Your task to perform on an android device: make emails show in primary in the gmail app Image 0: 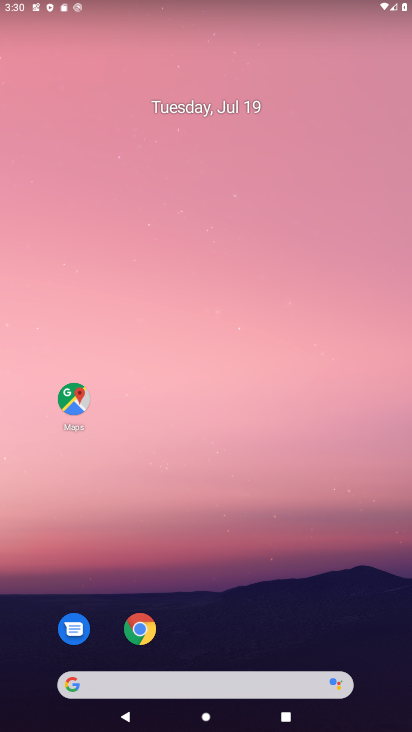
Step 0: drag from (187, 664) to (218, 289)
Your task to perform on an android device: make emails show in primary in the gmail app Image 1: 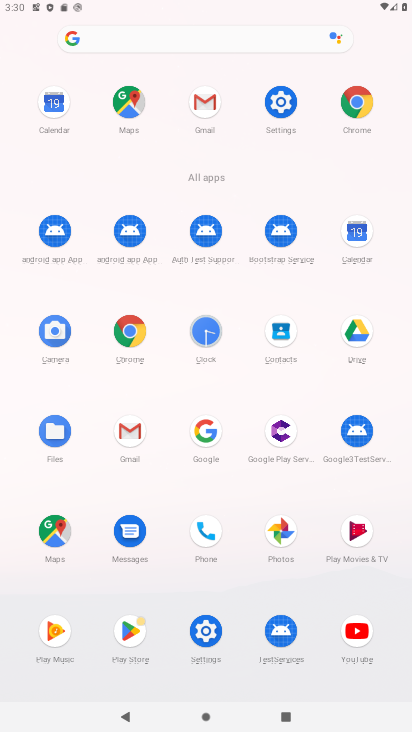
Step 1: click (203, 109)
Your task to perform on an android device: make emails show in primary in the gmail app Image 2: 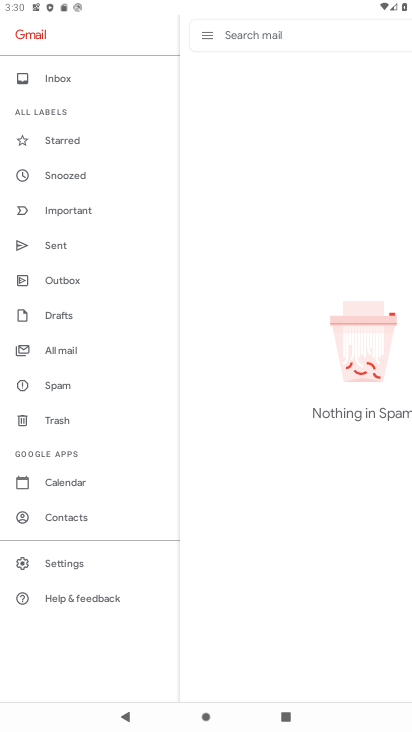
Step 2: click (77, 560)
Your task to perform on an android device: make emails show in primary in the gmail app Image 3: 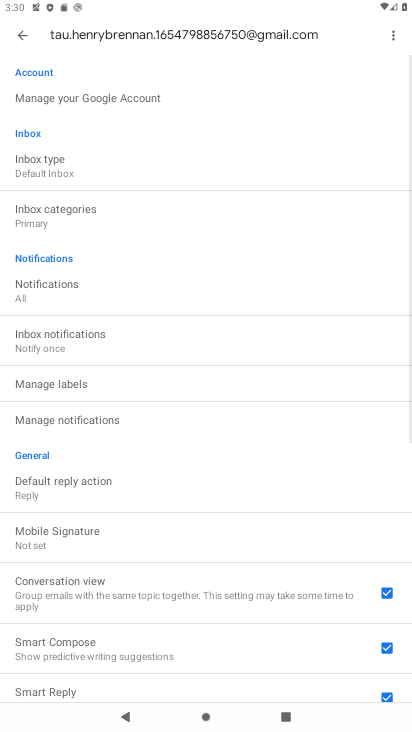
Step 3: click (48, 169)
Your task to perform on an android device: make emails show in primary in the gmail app Image 4: 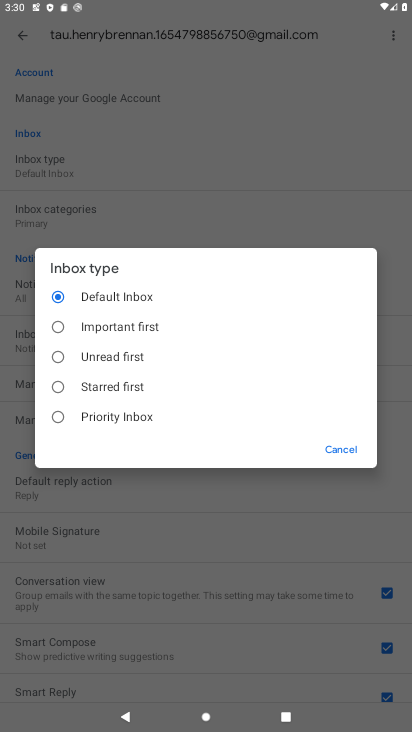
Step 4: click (117, 294)
Your task to perform on an android device: make emails show in primary in the gmail app Image 5: 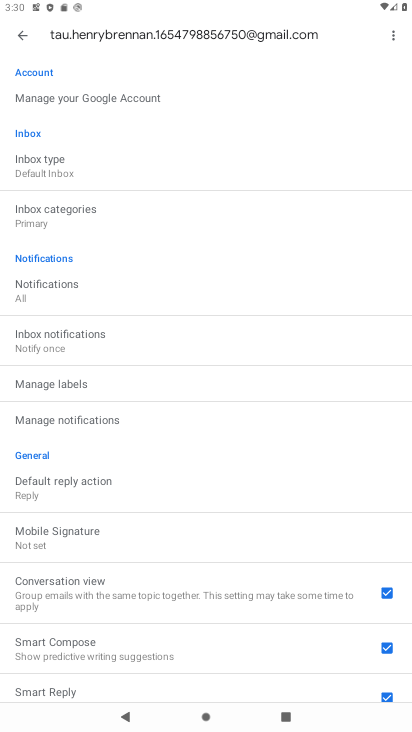
Step 5: click (36, 224)
Your task to perform on an android device: make emails show in primary in the gmail app Image 6: 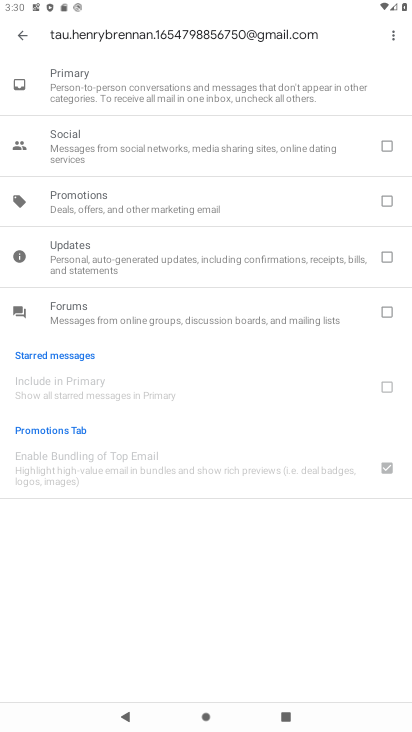
Step 6: click (18, 46)
Your task to perform on an android device: make emails show in primary in the gmail app Image 7: 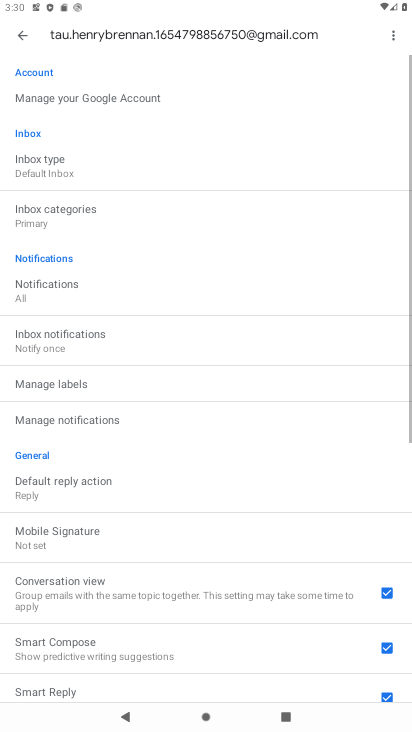
Step 7: task complete